Your task to perform on an android device: turn off sleep mode Image 0: 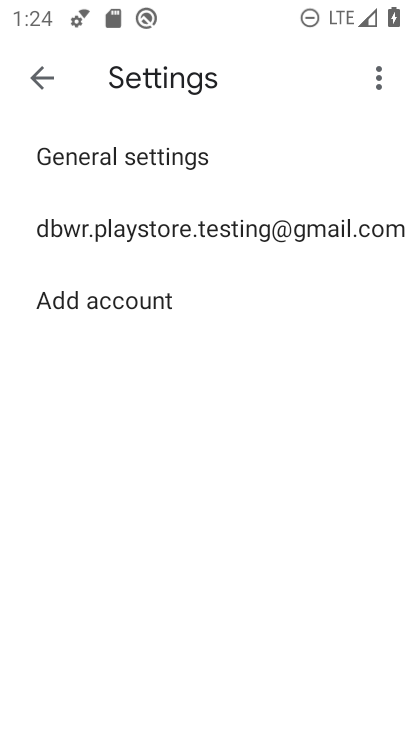
Step 0: press home button
Your task to perform on an android device: turn off sleep mode Image 1: 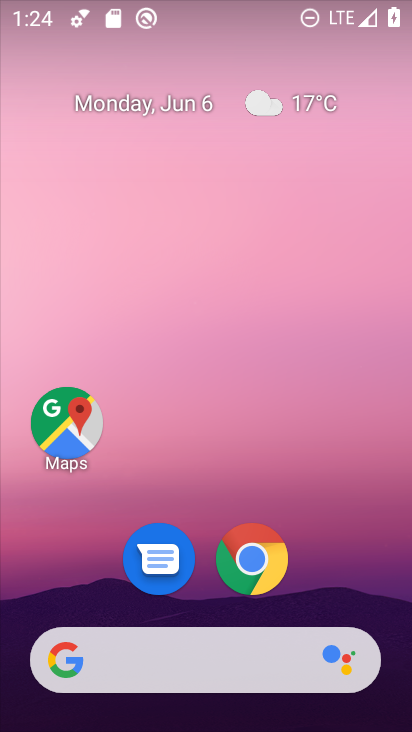
Step 1: drag from (271, 639) to (244, 174)
Your task to perform on an android device: turn off sleep mode Image 2: 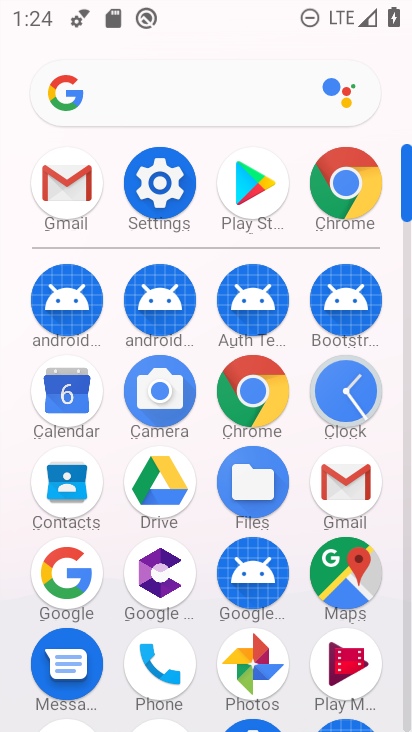
Step 2: click (180, 193)
Your task to perform on an android device: turn off sleep mode Image 3: 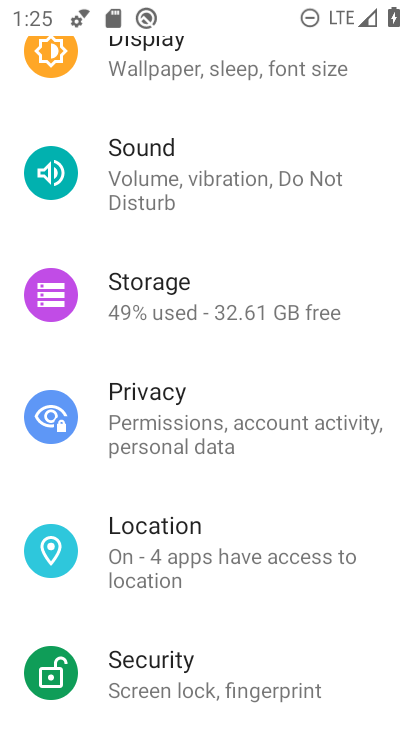
Step 3: drag from (203, 338) to (216, 637)
Your task to perform on an android device: turn off sleep mode Image 4: 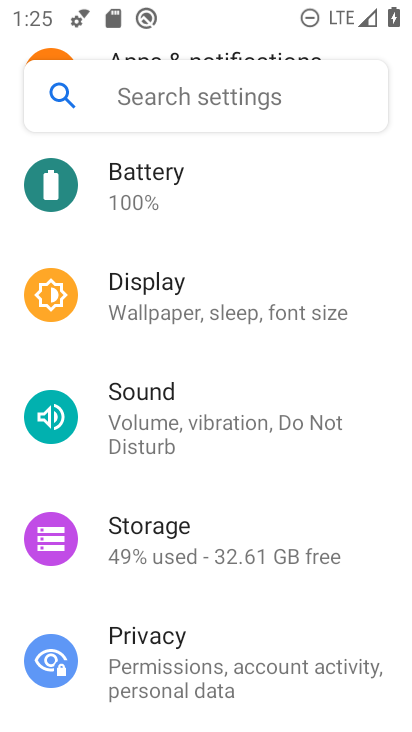
Step 4: click (225, 304)
Your task to perform on an android device: turn off sleep mode Image 5: 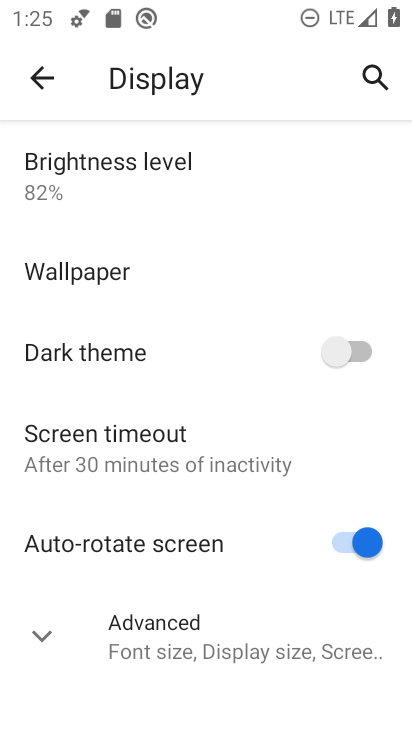
Step 5: click (174, 631)
Your task to perform on an android device: turn off sleep mode Image 6: 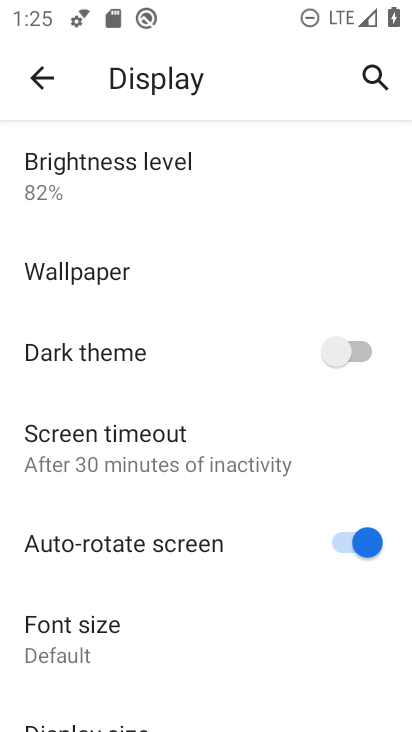
Step 6: task complete